Your task to perform on an android device: turn on airplane mode Image 0: 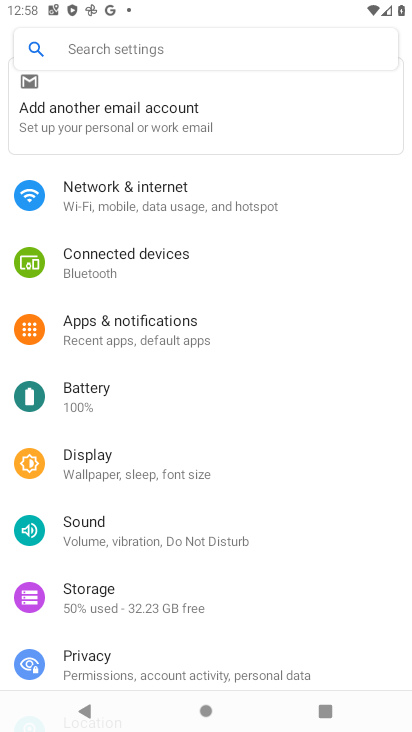
Step 0: click (187, 204)
Your task to perform on an android device: turn on airplane mode Image 1: 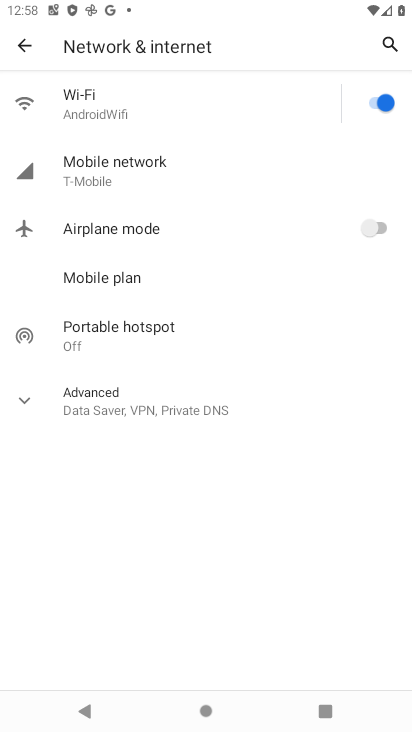
Step 1: click (378, 226)
Your task to perform on an android device: turn on airplane mode Image 2: 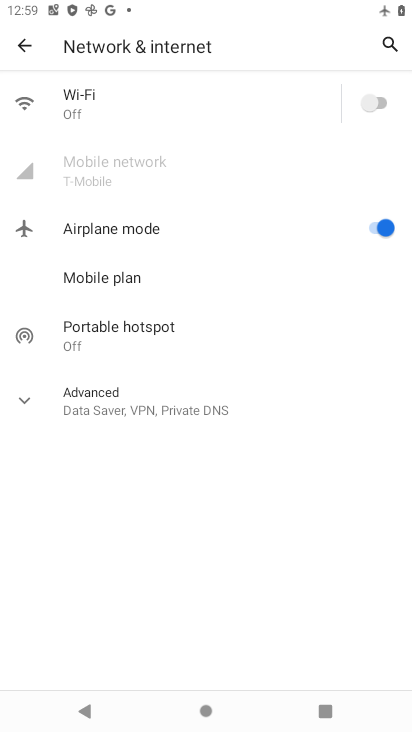
Step 2: task complete